Your task to perform on an android device: toggle improve location accuracy Image 0: 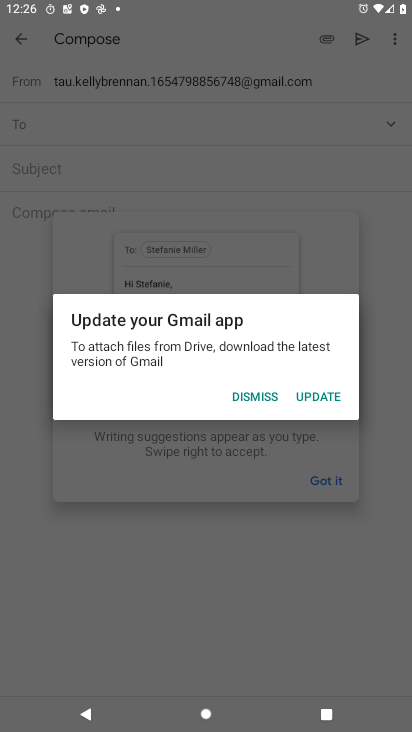
Step 0: press home button
Your task to perform on an android device: toggle improve location accuracy Image 1: 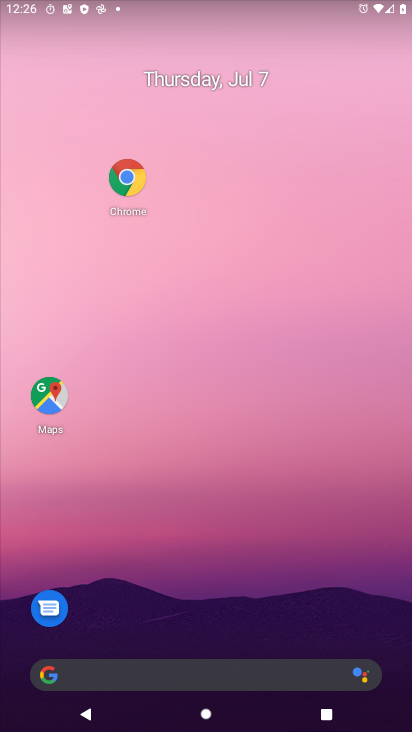
Step 1: drag from (238, 663) to (295, 124)
Your task to perform on an android device: toggle improve location accuracy Image 2: 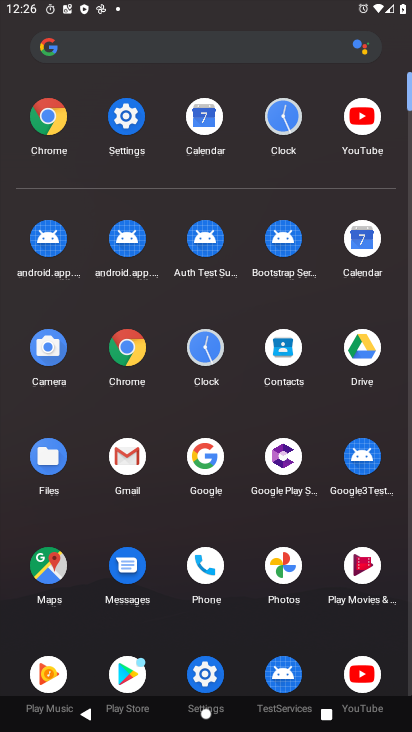
Step 2: click (210, 666)
Your task to perform on an android device: toggle improve location accuracy Image 3: 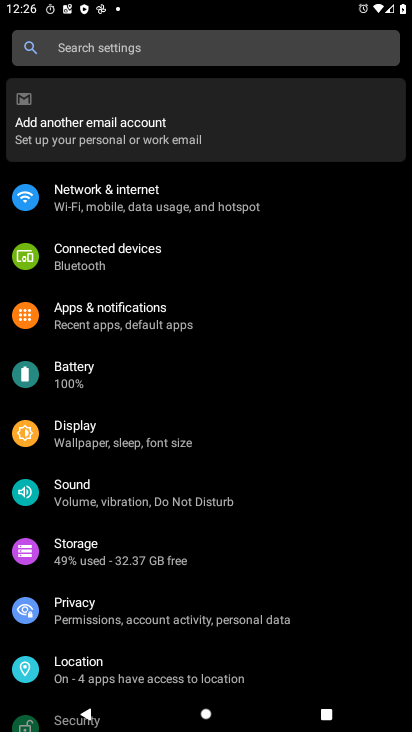
Step 3: click (83, 673)
Your task to perform on an android device: toggle improve location accuracy Image 4: 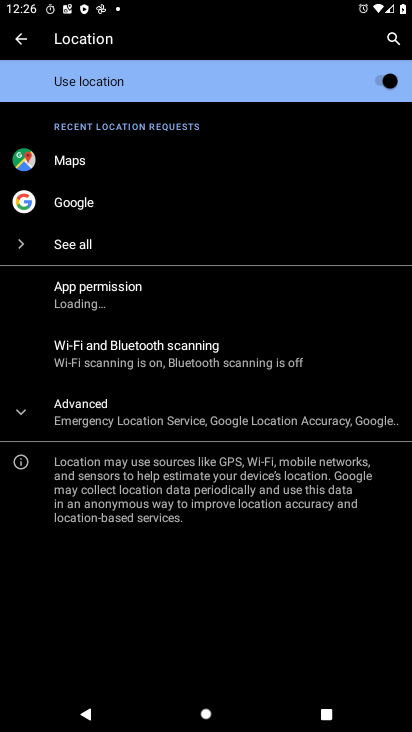
Step 4: click (79, 412)
Your task to perform on an android device: toggle improve location accuracy Image 5: 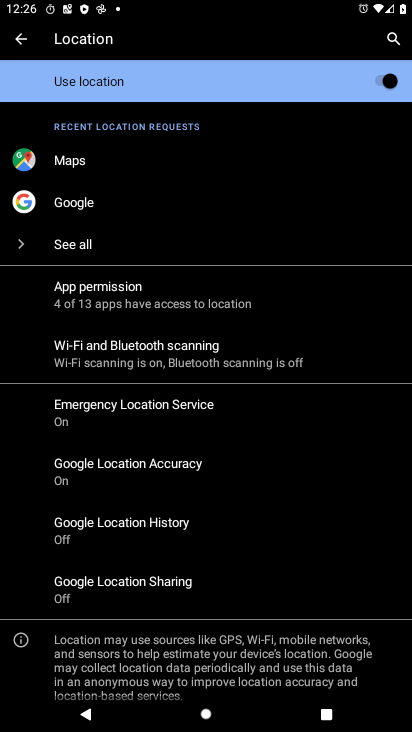
Step 5: click (116, 462)
Your task to perform on an android device: toggle improve location accuracy Image 6: 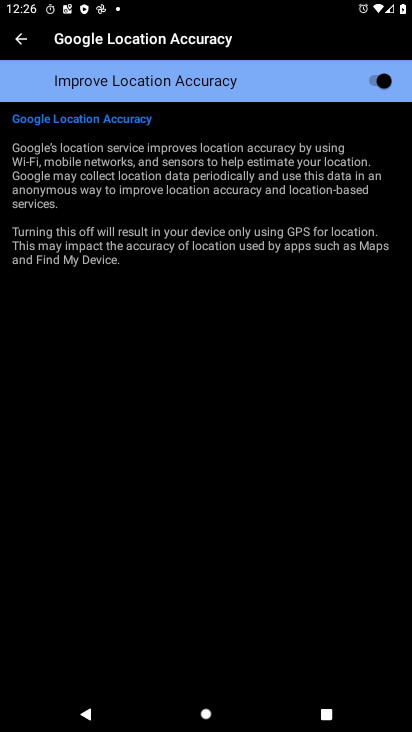
Step 6: click (380, 79)
Your task to perform on an android device: toggle improve location accuracy Image 7: 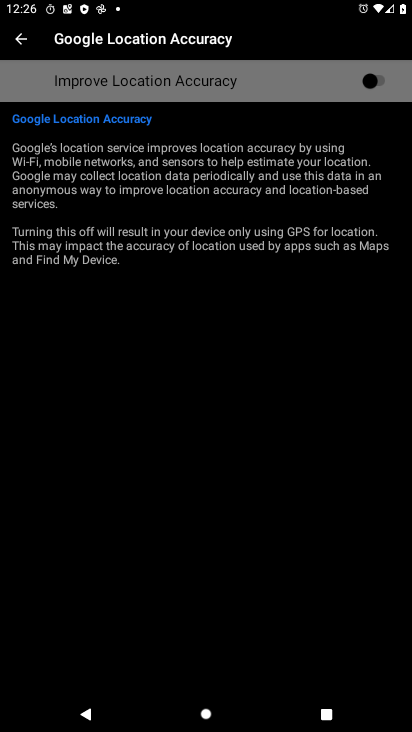
Step 7: task complete